Your task to perform on an android device: Go to settings Image 0: 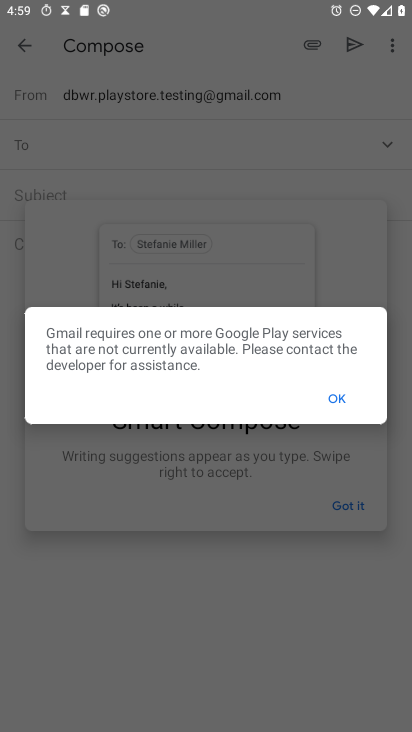
Step 0: press home button
Your task to perform on an android device: Go to settings Image 1: 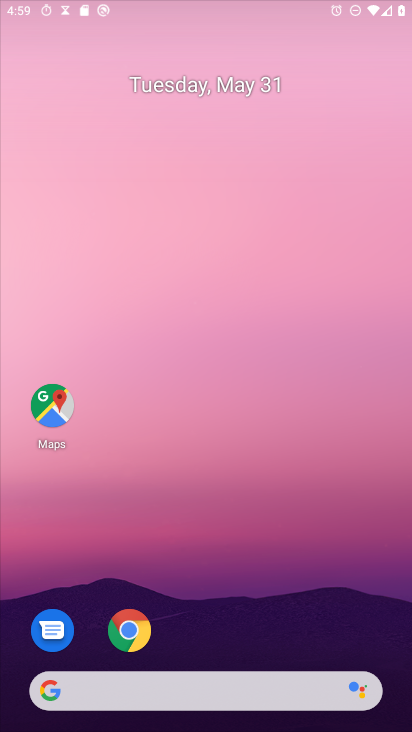
Step 1: drag from (313, 694) to (336, 13)
Your task to perform on an android device: Go to settings Image 2: 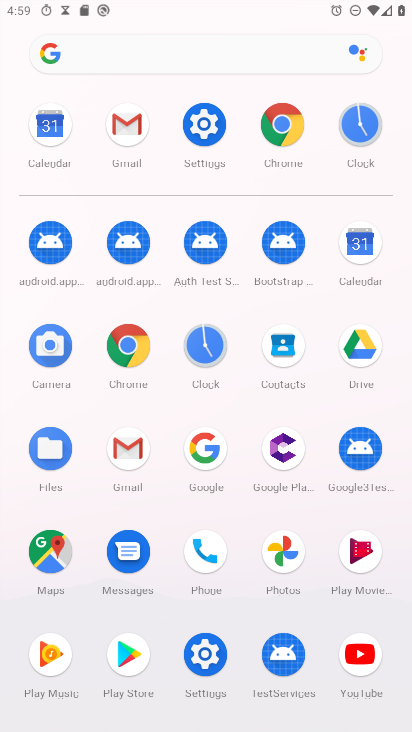
Step 2: click (195, 130)
Your task to perform on an android device: Go to settings Image 3: 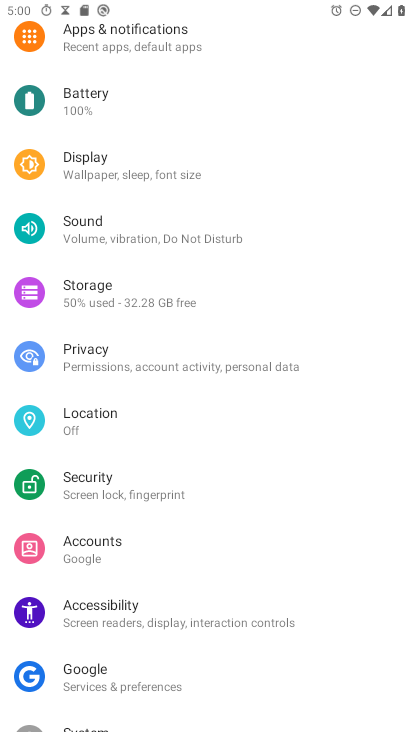
Step 3: task complete